Your task to perform on an android device: turn off notifications settings in the gmail app Image 0: 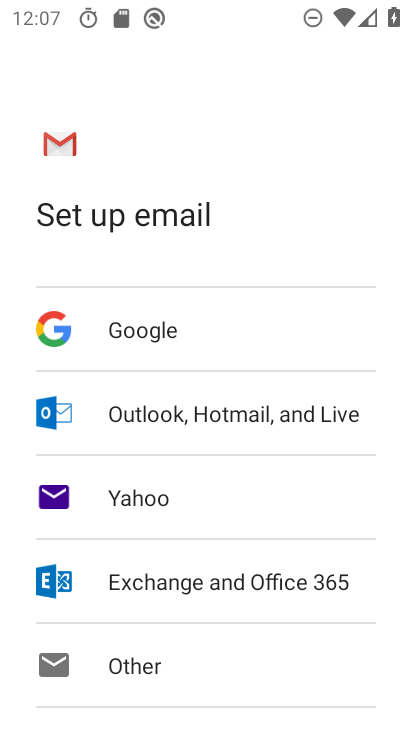
Step 0: press home button
Your task to perform on an android device: turn off notifications settings in the gmail app Image 1: 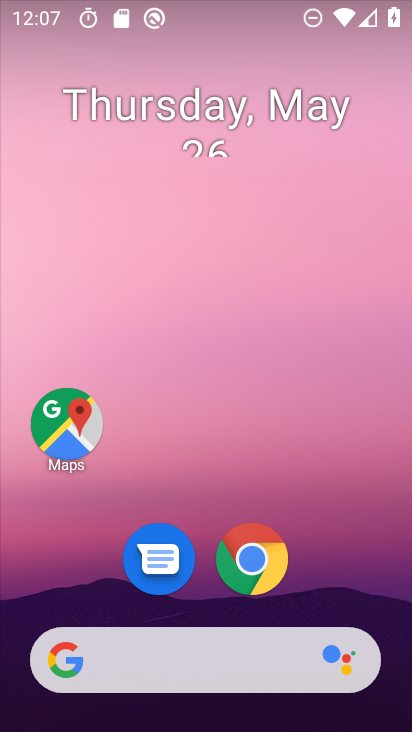
Step 1: drag from (372, 556) to (374, 137)
Your task to perform on an android device: turn off notifications settings in the gmail app Image 2: 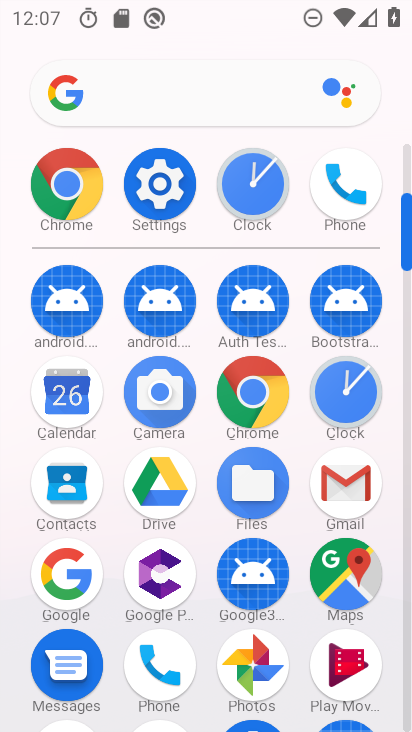
Step 2: click (360, 499)
Your task to perform on an android device: turn off notifications settings in the gmail app Image 3: 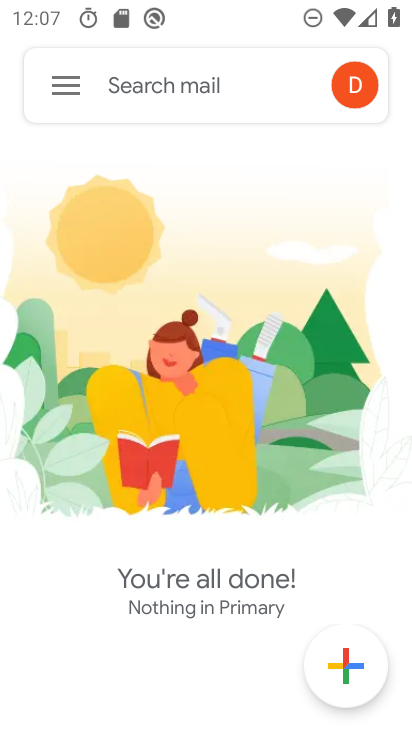
Step 3: click (65, 106)
Your task to perform on an android device: turn off notifications settings in the gmail app Image 4: 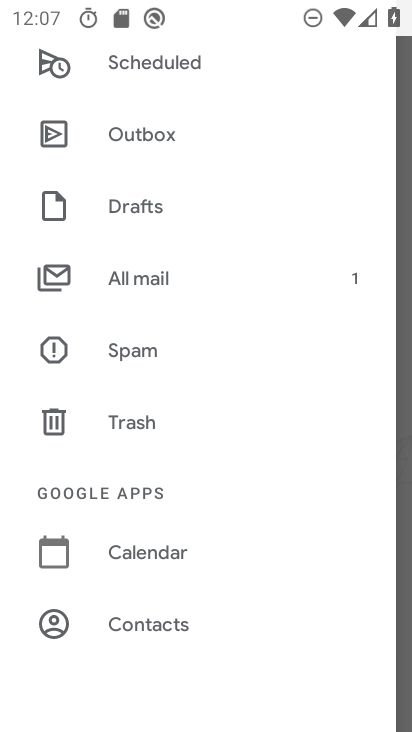
Step 4: drag from (243, 578) to (246, 253)
Your task to perform on an android device: turn off notifications settings in the gmail app Image 5: 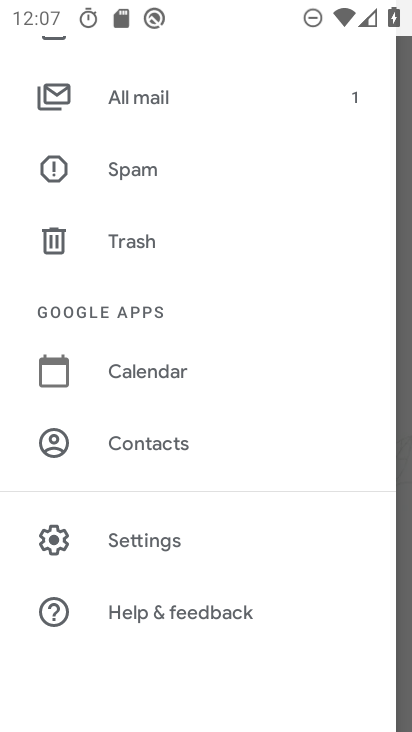
Step 5: click (173, 526)
Your task to perform on an android device: turn off notifications settings in the gmail app Image 6: 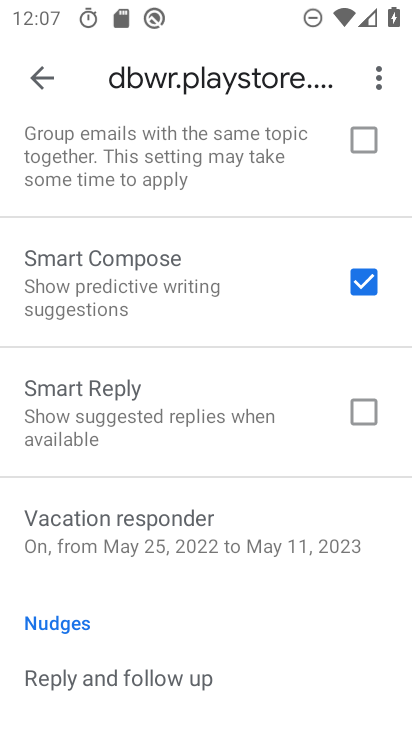
Step 6: drag from (127, 150) to (149, 643)
Your task to perform on an android device: turn off notifications settings in the gmail app Image 7: 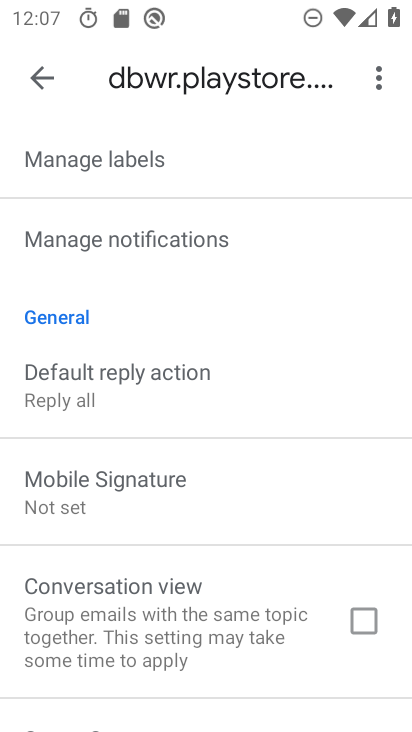
Step 7: drag from (75, 267) to (99, 636)
Your task to perform on an android device: turn off notifications settings in the gmail app Image 8: 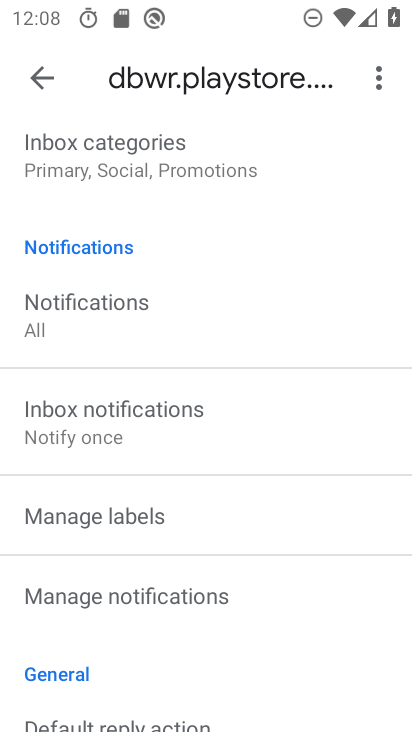
Step 8: drag from (190, 382) to (192, 579)
Your task to perform on an android device: turn off notifications settings in the gmail app Image 9: 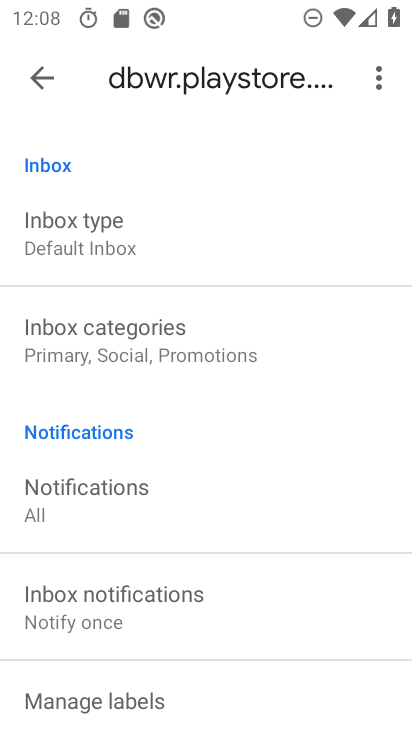
Step 9: click (152, 505)
Your task to perform on an android device: turn off notifications settings in the gmail app Image 10: 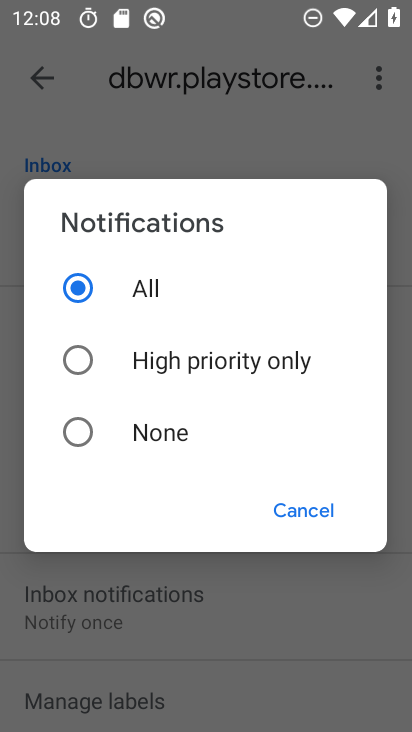
Step 10: click (132, 438)
Your task to perform on an android device: turn off notifications settings in the gmail app Image 11: 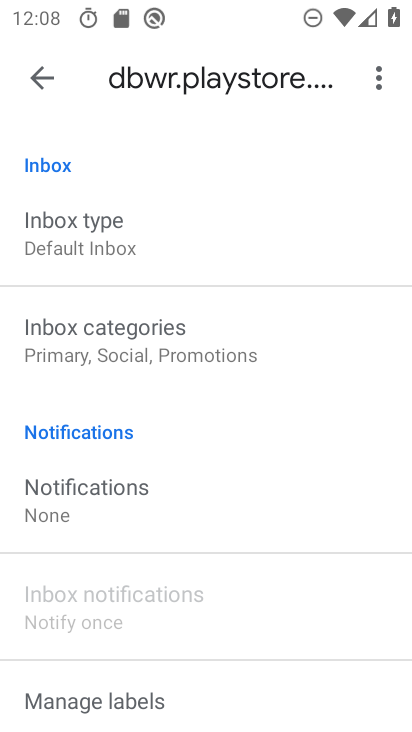
Step 11: task complete